Your task to perform on an android device: Set the phone to "Do not disturb". Image 0: 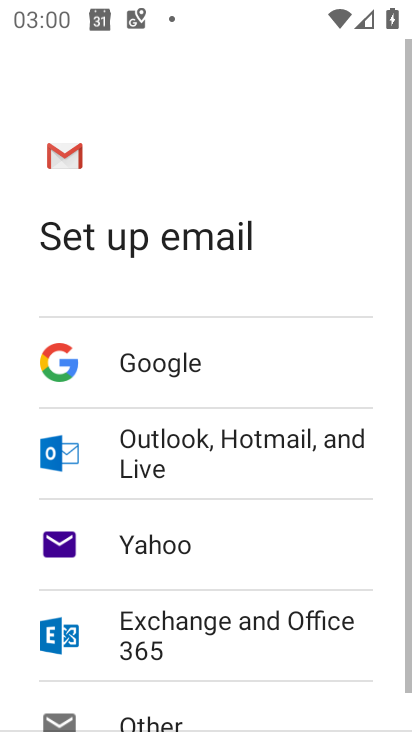
Step 0: press home button
Your task to perform on an android device: Set the phone to "Do not disturb". Image 1: 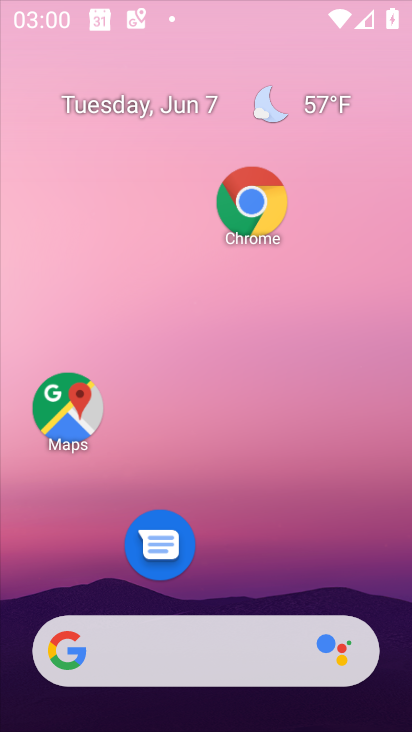
Step 1: drag from (168, 6) to (170, 535)
Your task to perform on an android device: Set the phone to "Do not disturb". Image 2: 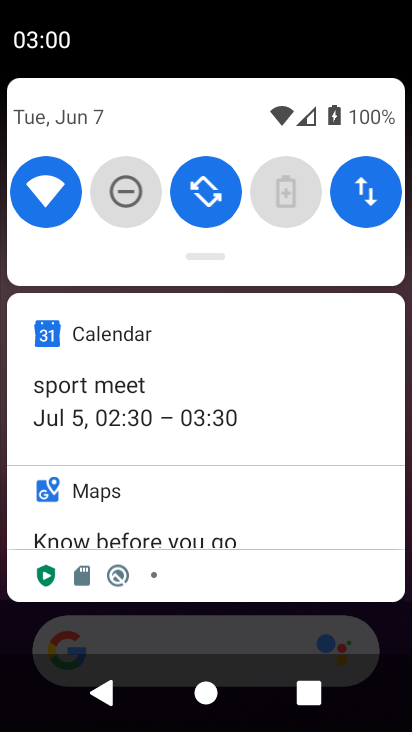
Step 2: click (137, 181)
Your task to perform on an android device: Set the phone to "Do not disturb". Image 3: 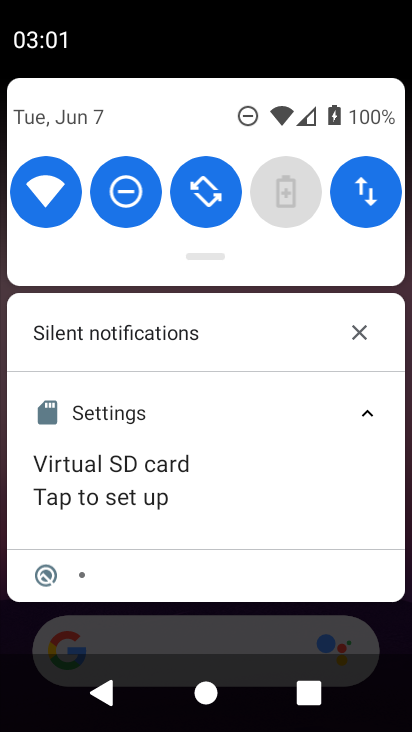
Step 3: task complete